Your task to perform on an android device: check the backup settings in the google photos Image 0: 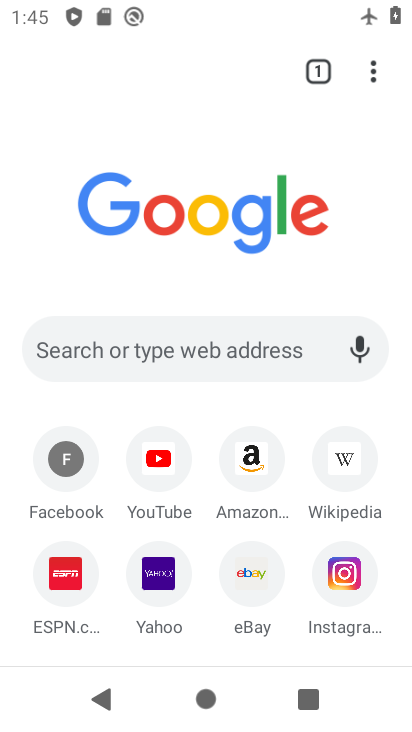
Step 0: press home button
Your task to perform on an android device: check the backup settings in the google photos Image 1: 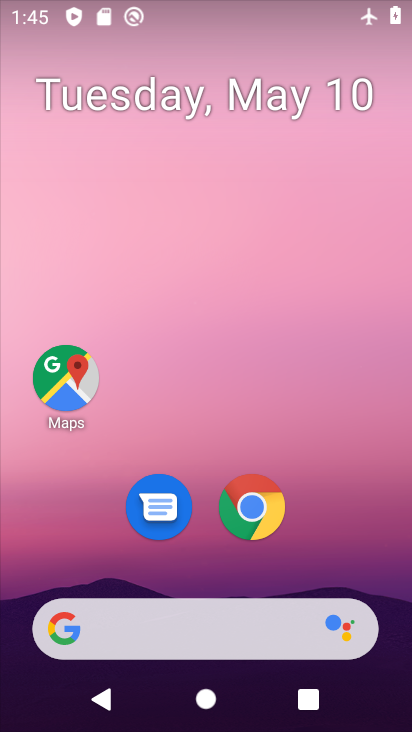
Step 1: drag from (330, 552) to (164, 158)
Your task to perform on an android device: check the backup settings in the google photos Image 2: 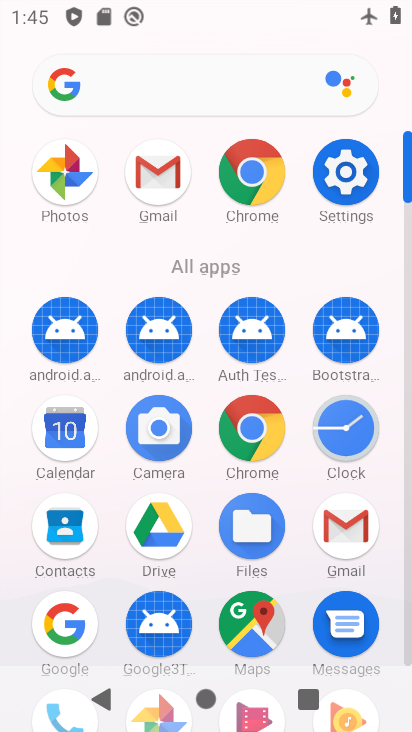
Step 2: click (59, 174)
Your task to perform on an android device: check the backup settings in the google photos Image 3: 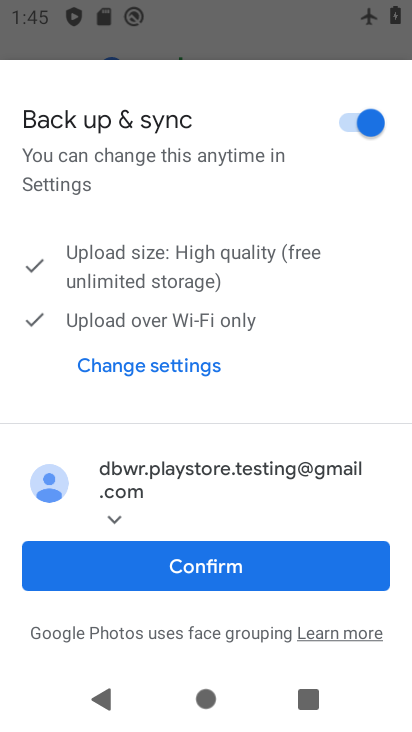
Step 3: click (225, 563)
Your task to perform on an android device: check the backup settings in the google photos Image 4: 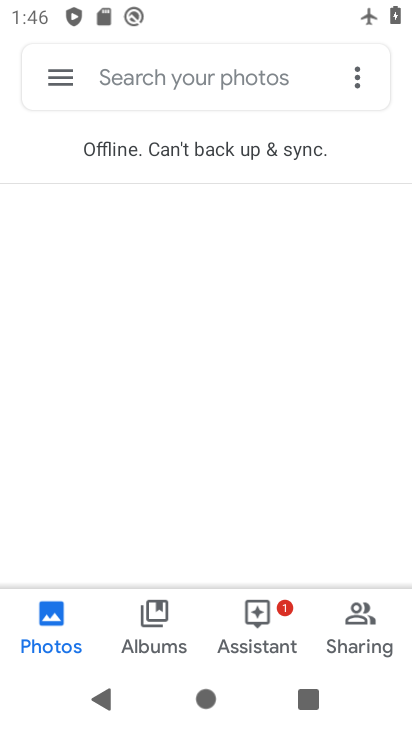
Step 4: click (359, 82)
Your task to perform on an android device: check the backup settings in the google photos Image 5: 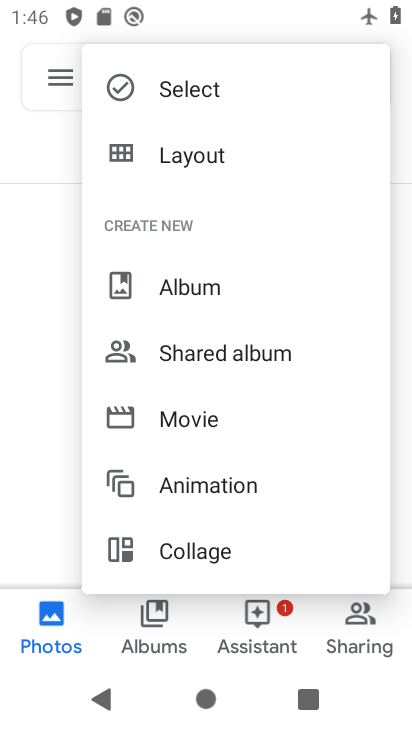
Step 5: click (73, 79)
Your task to perform on an android device: check the backup settings in the google photos Image 6: 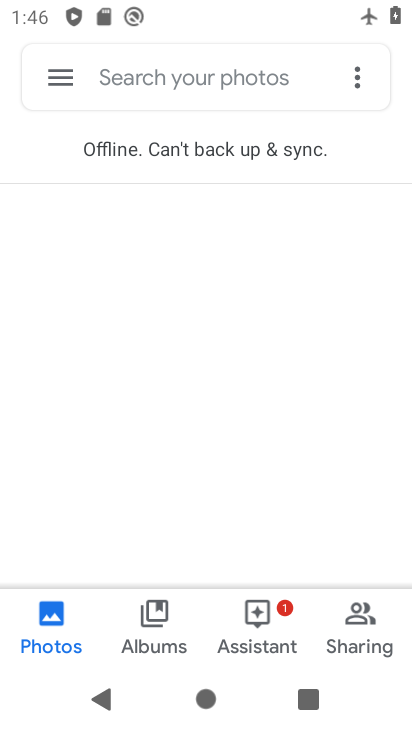
Step 6: click (66, 73)
Your task to perform on an android device: check the backup settings in the google photos Image 7: 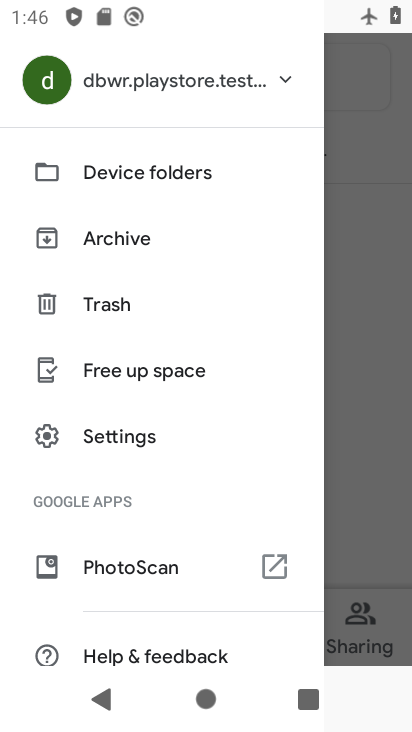
Step 7: click (115, 431)
Your task to perform on an android device: check the backup settings in the google photos Image 8: 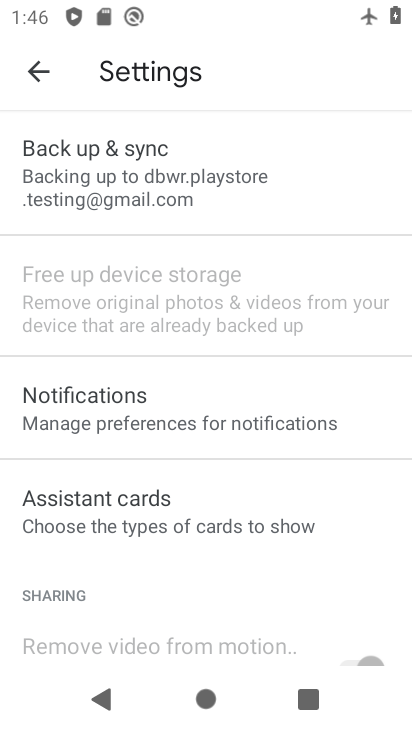
Step 8: click (102, 171)
Your task to perform on an android device: check the backup settings in the google photos Image 9: 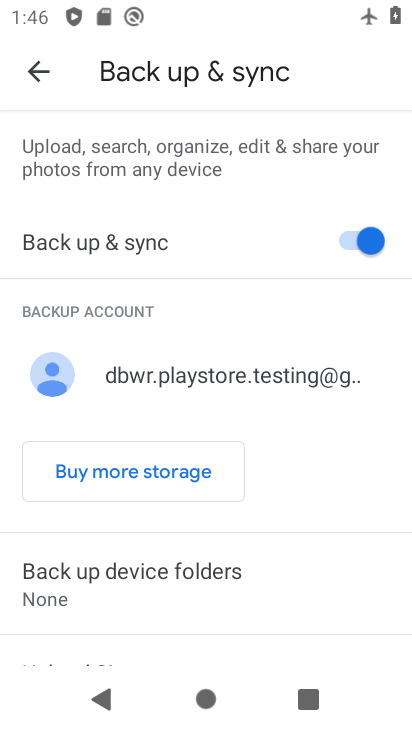
Step 9: task complete